Your task to perform on an android device: Open settings Image 0: 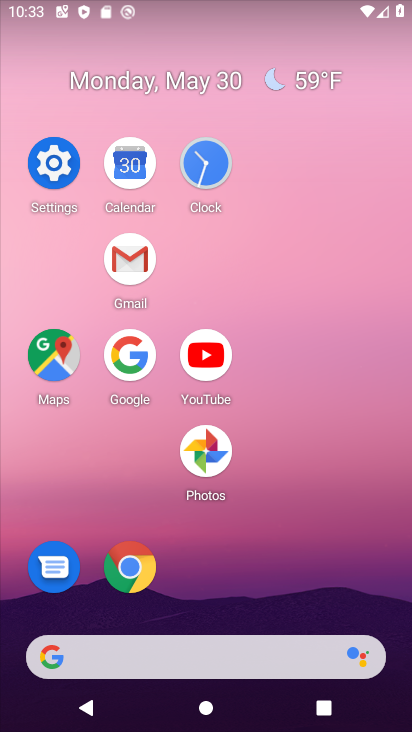
Step 0: click (58, 159)
Your task to perform on an android device: Open settings Image 1: 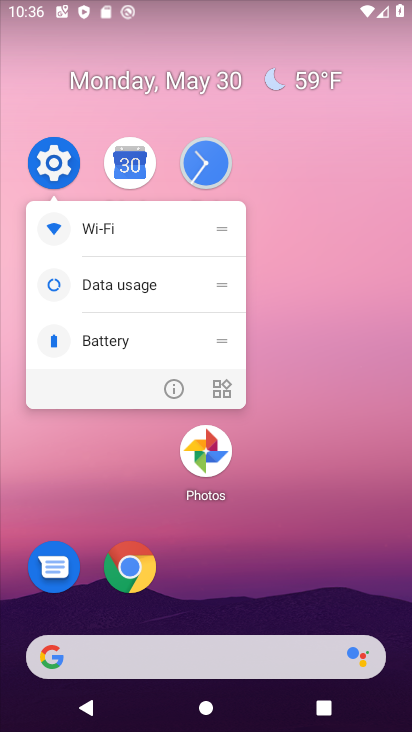
Step 1: click (58, 159)
Your task to perform on an android device: Open settings Image 2: 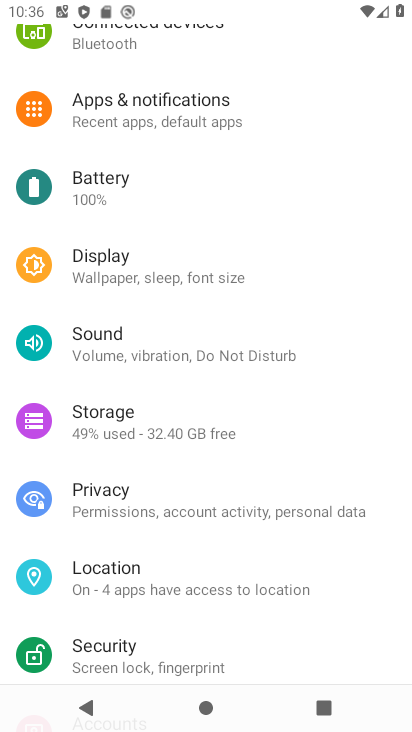
Step 2: task complete